Your task to perform on an android device: Go to privacy settings Image 0: 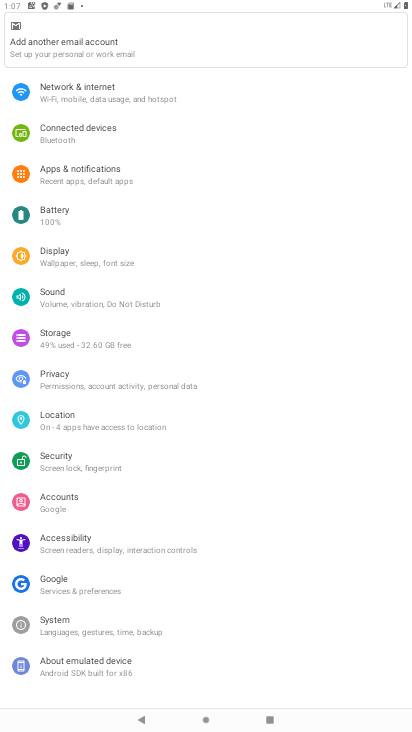
Step 0: click (58, 377)
Your task to perform on an android device: Go to privacy settings Image 1: 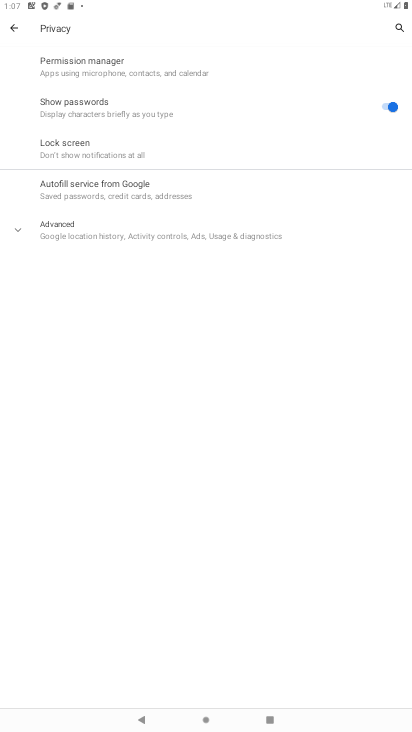
Step 1: task complete